Your task to perform on an android device: uninstall "Cash App" Image 0: 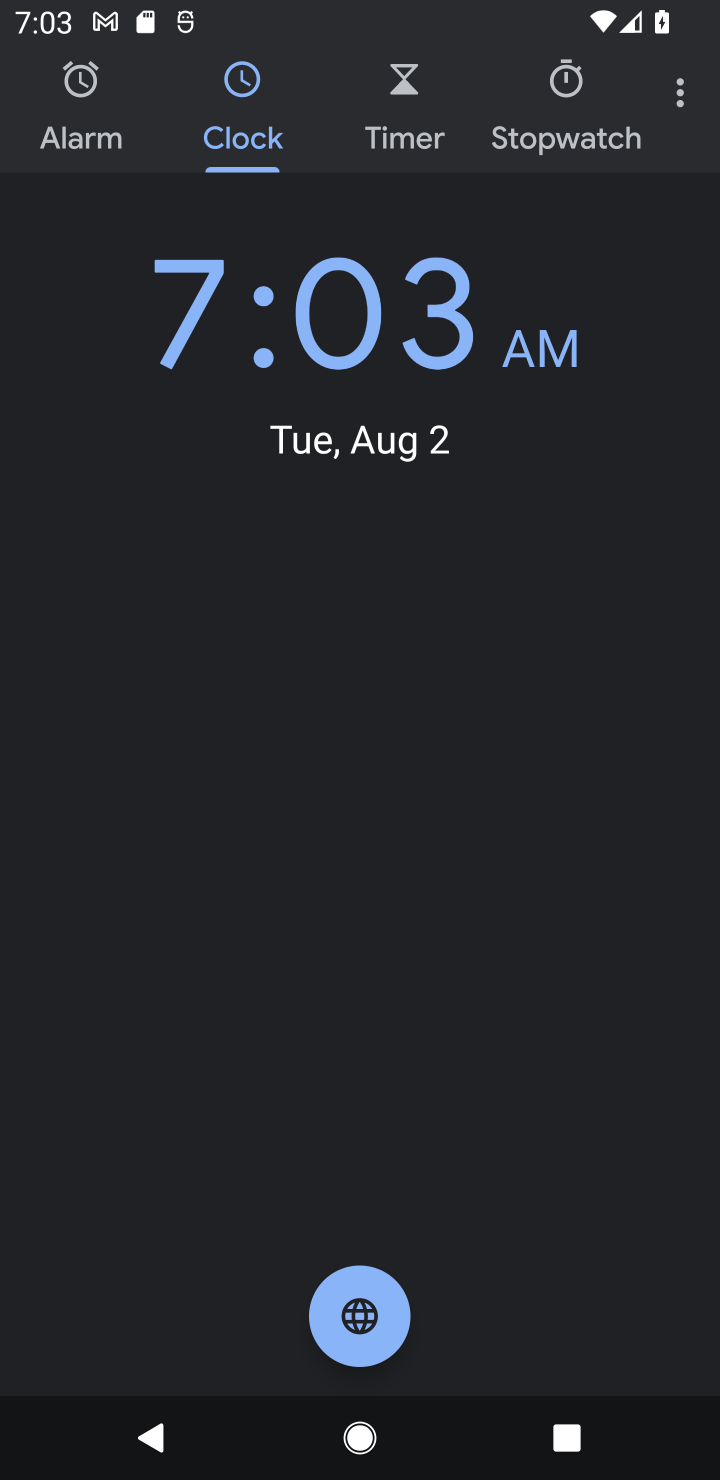
Step 0: press home button
Your task to perform on an android device: uninstall "Cash App" Image 1: 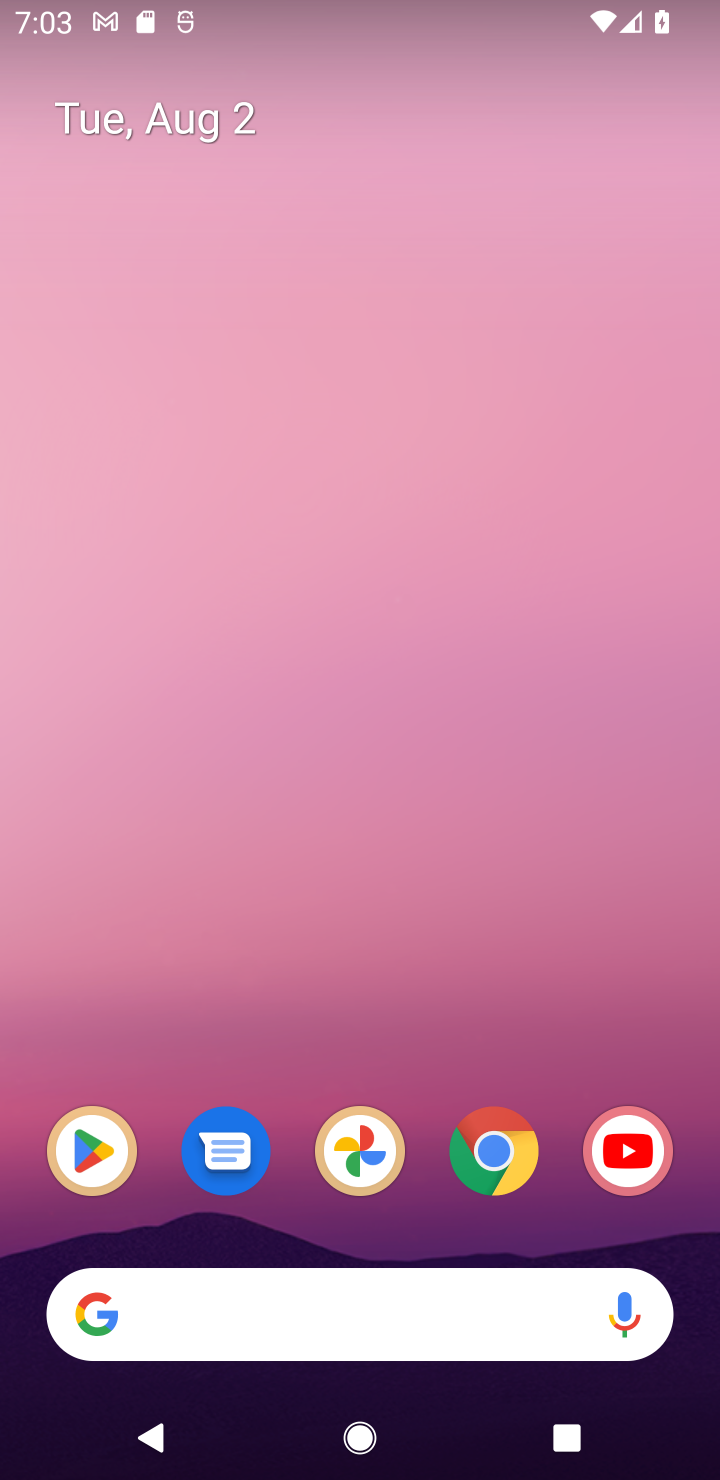
Step 1: click (101, 1143)
Your task to perform on an android device: uninstall "Cash App" Image 2: 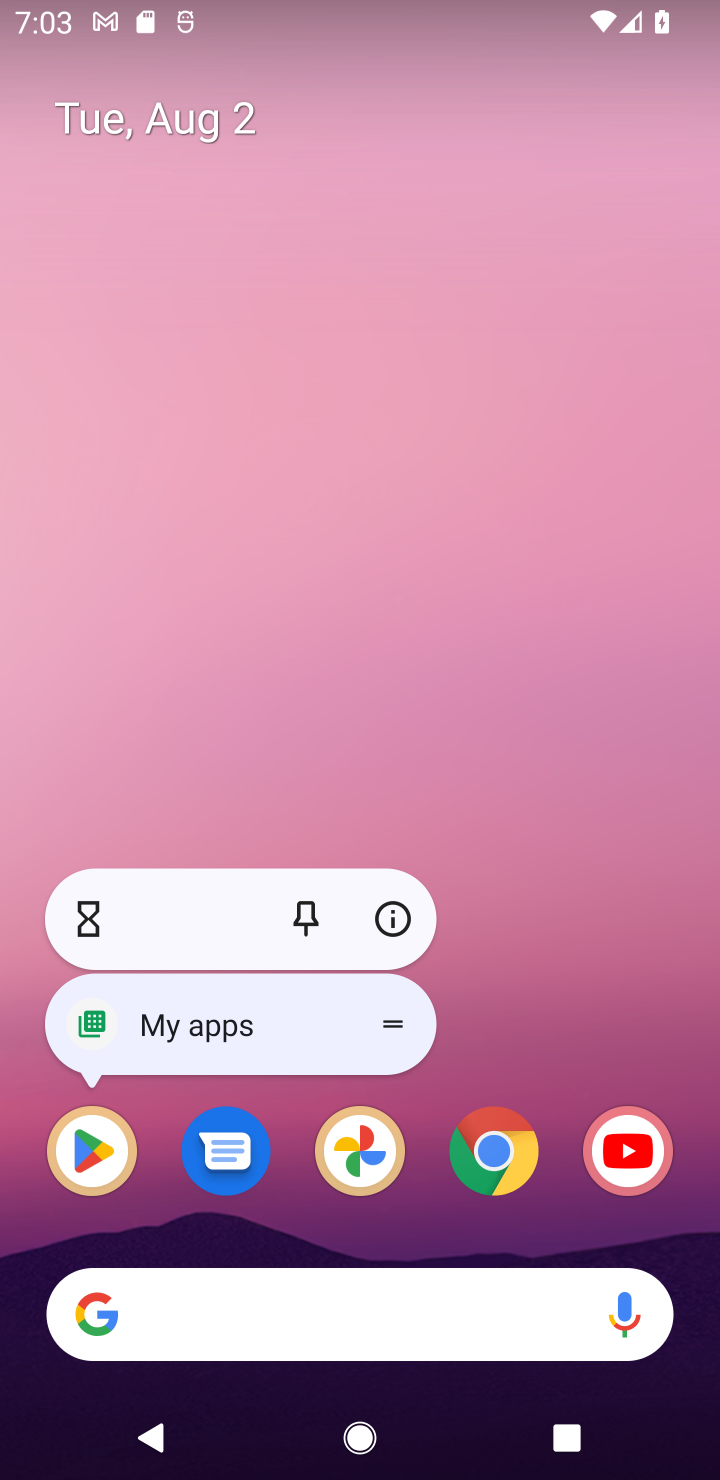
Step 2: click (101, 1143)
Your task to perform on an android device: uninstall "Cash App" Image 3: 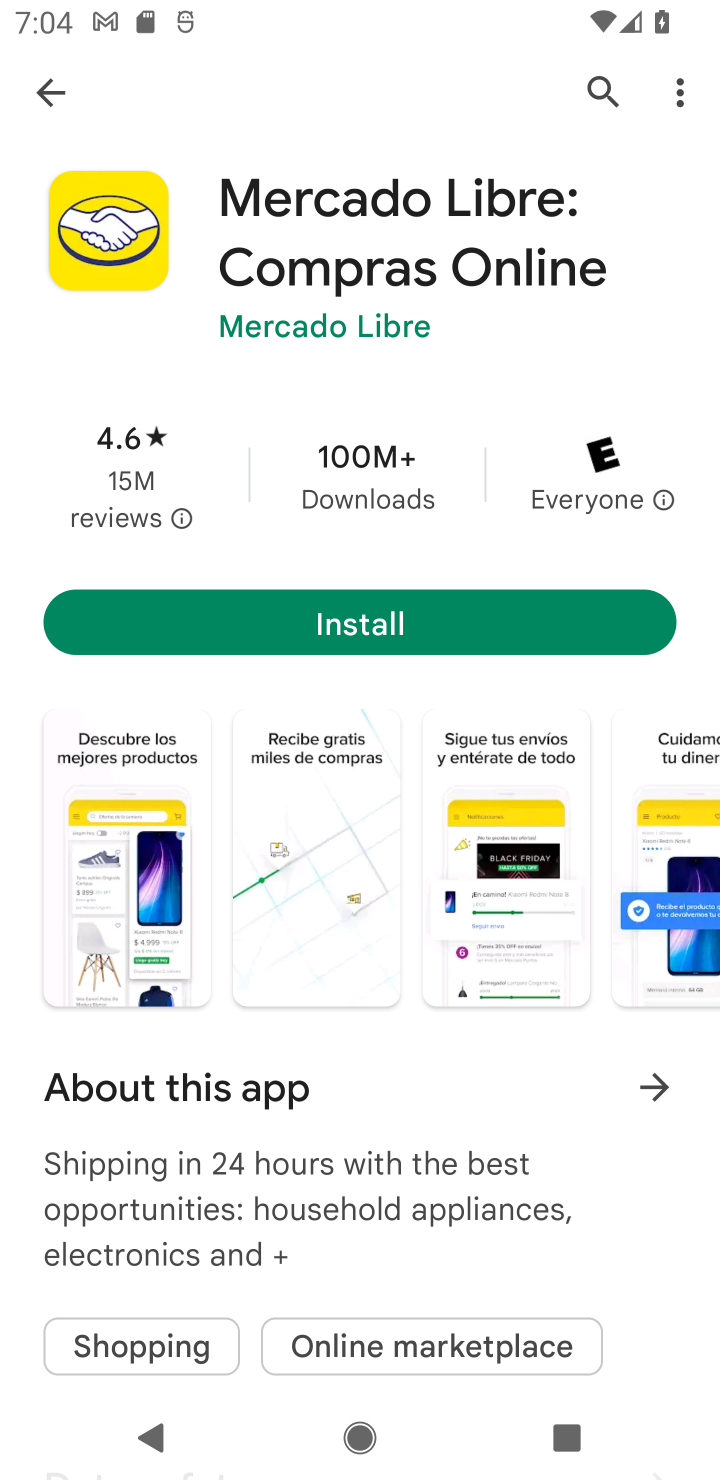
Step 3: click (597, 99)
Your task to perform on an android device: uninstall "Cash App" Image 4: 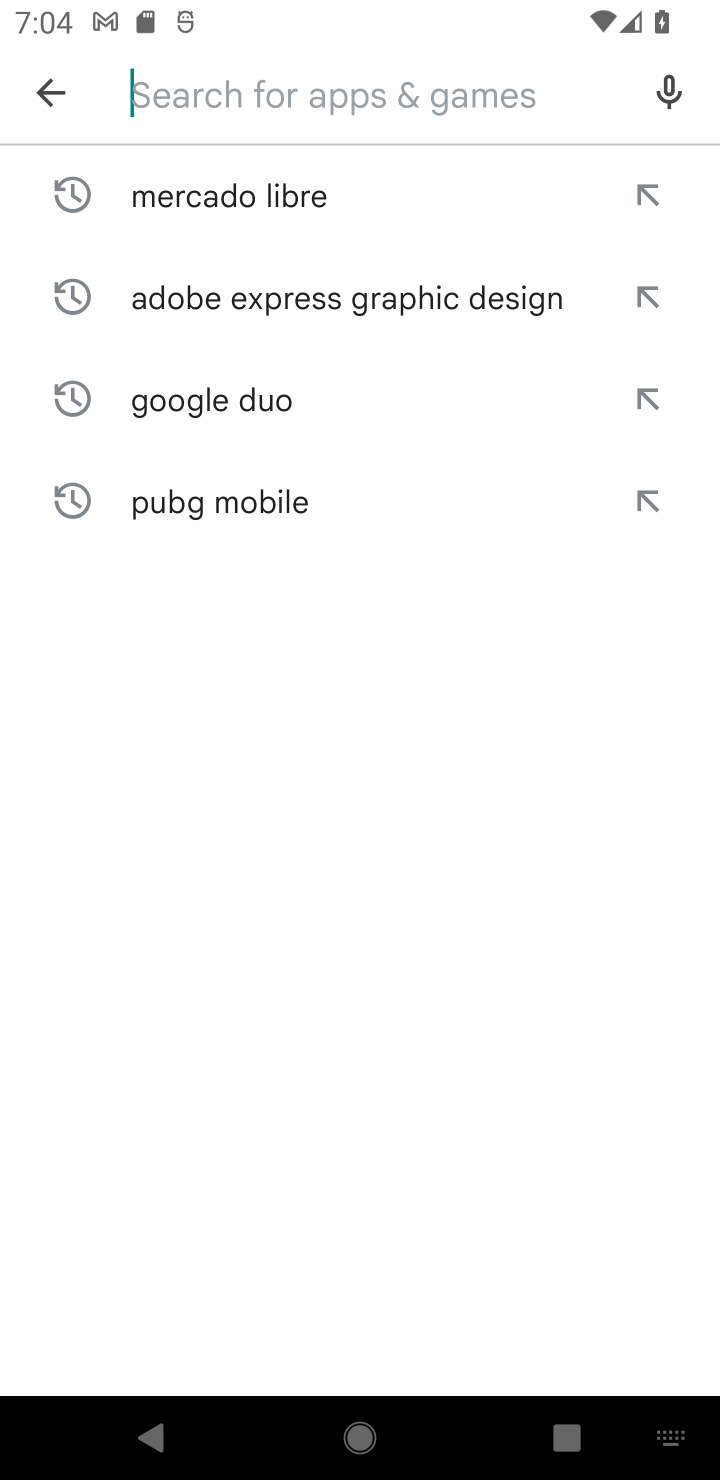
Step 4: type "Cash App"
Your task to perform on an android device: uninstall "Cash App" Image 5: 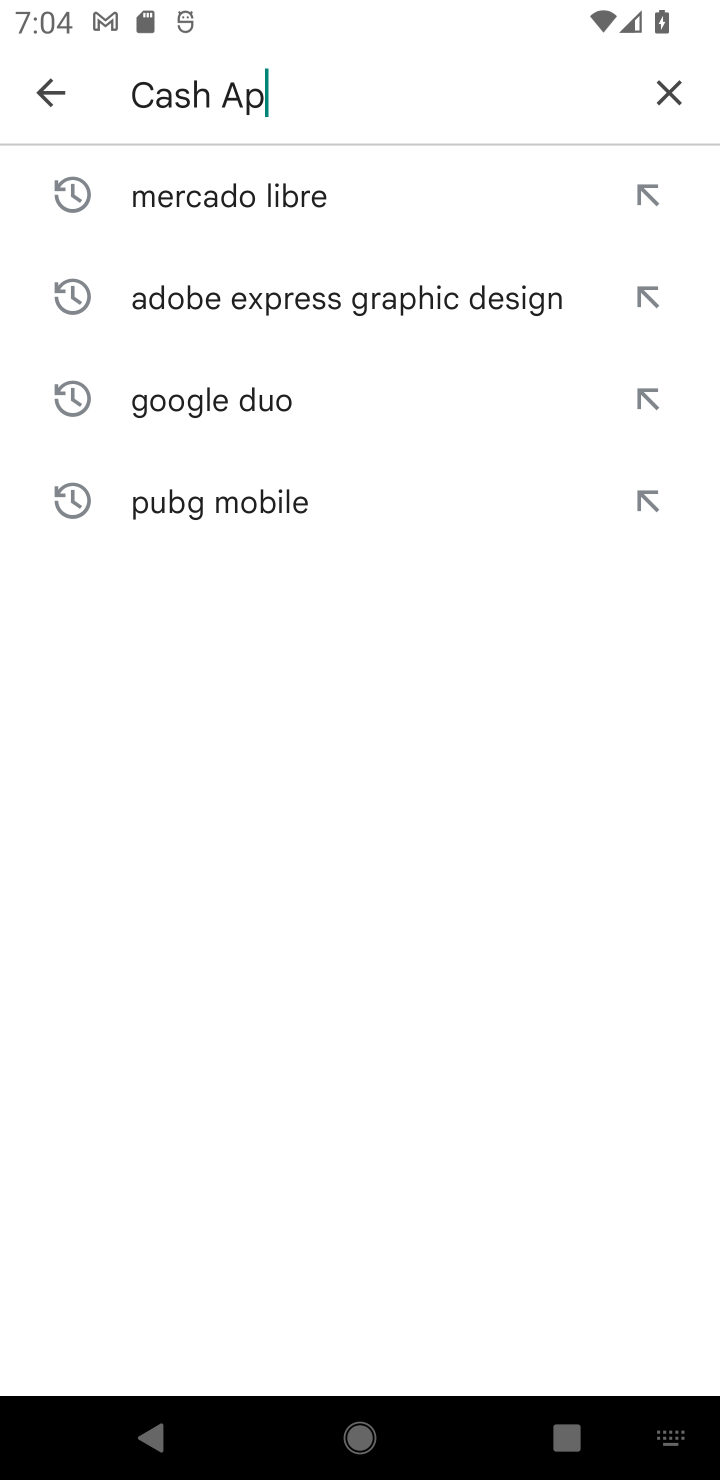
Step 5: type ""
Your task to perform on an android device: uninstall "Cash App" Image 6: 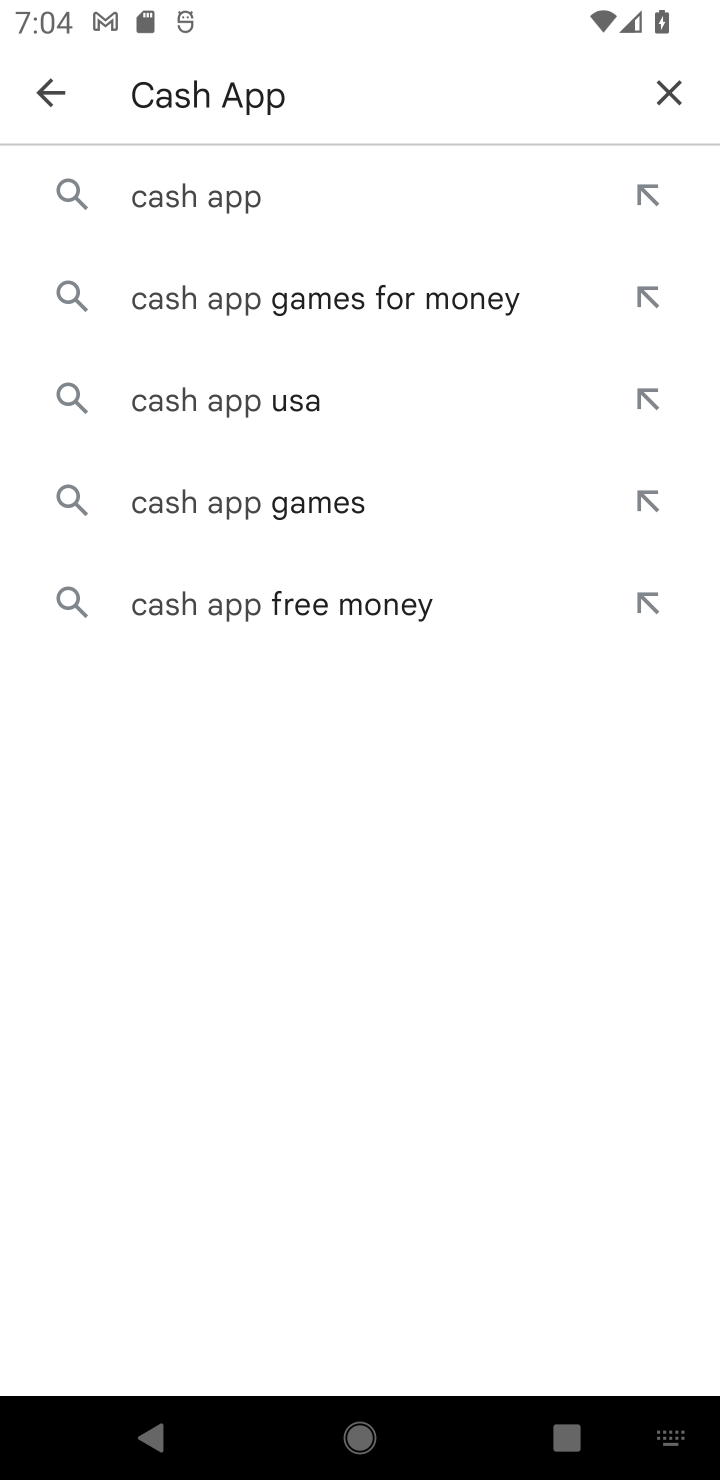
Step 6: click (221, 194)
Your task to perform on an android device: uninstall "Cash App" Image 7: 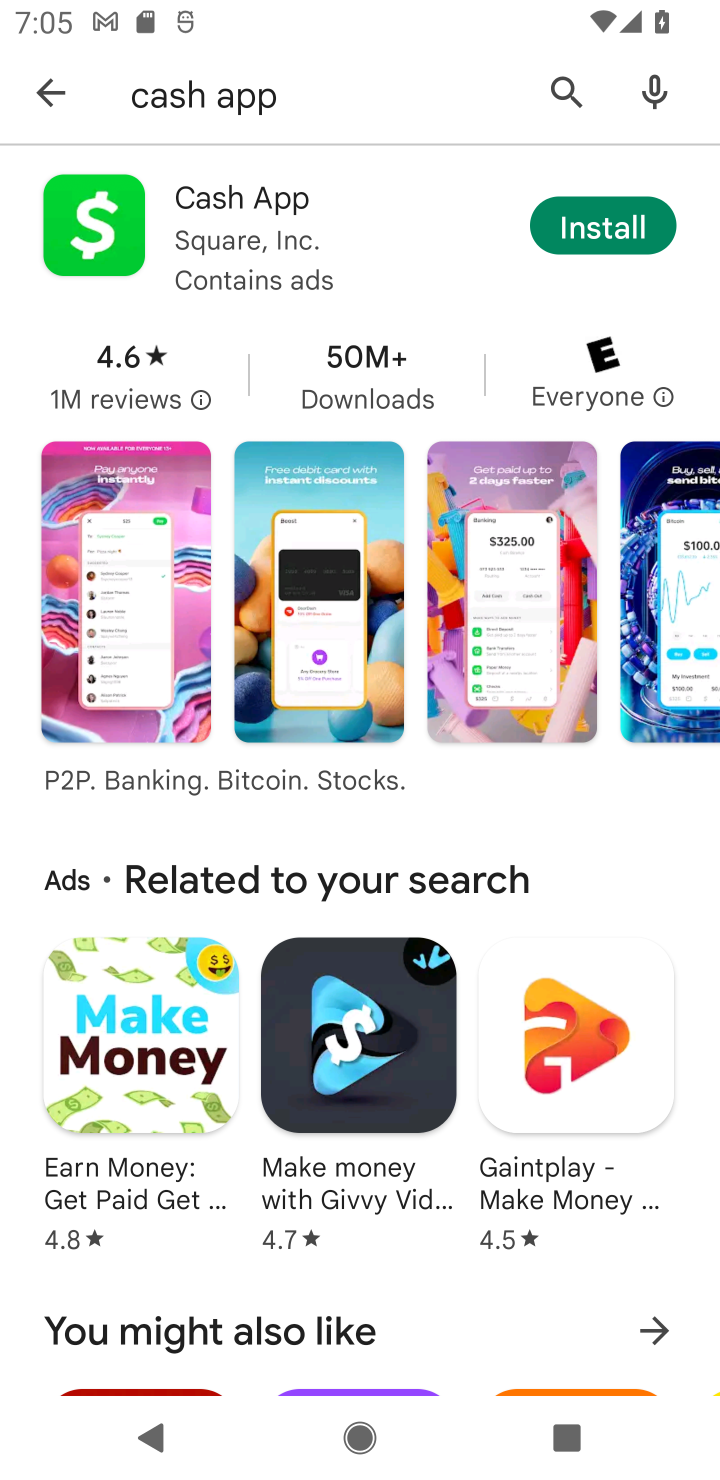
Step 7: task complete